Your task to perform on an android device: open a bookmark in the chrome app Image 0: 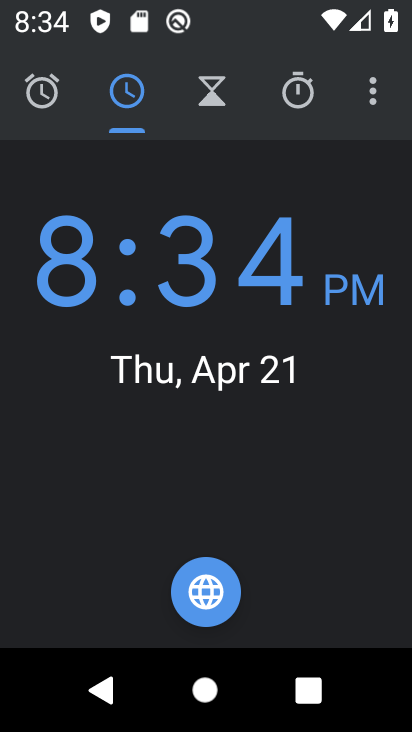
Step 0: press home button
Your task to perform on an android device: open a bookmark in the chrome app Image 1: 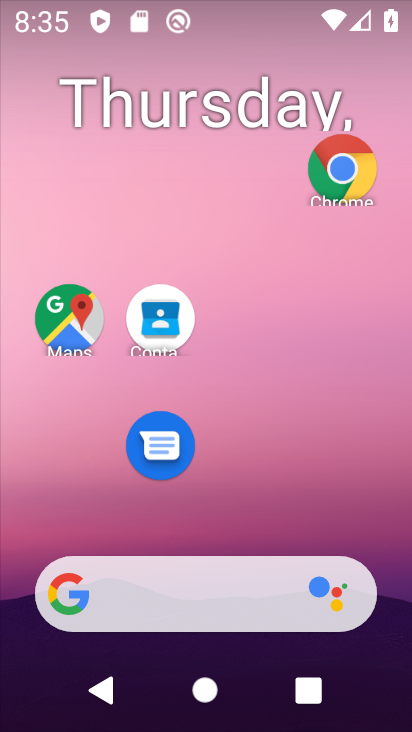
Step 1: drag from (314, 659) to (283, 259)
Your task to perform on an android device: open a bookmark in the chrome app Image 2: 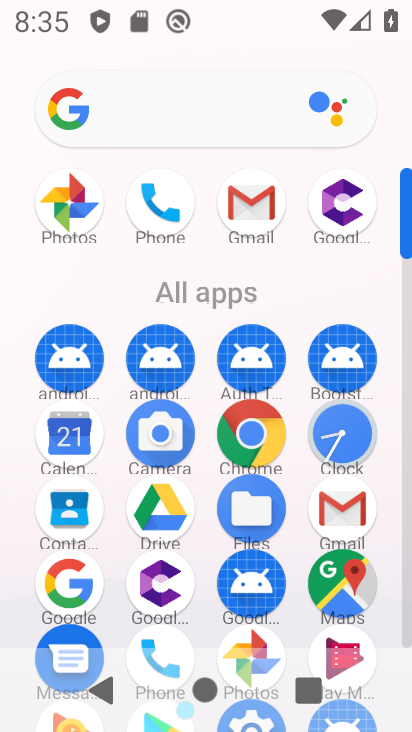
Step 2: click (254, 420)
Your task to perform on an android device: open a bookmark in the chrome app Image 3: 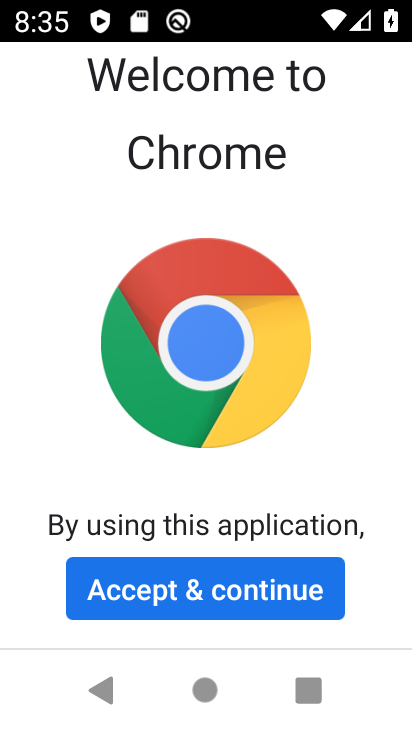
Step 3: click (224, 595)
Your task to perform on an android device: open a bookmark in the chrome app Image 4: 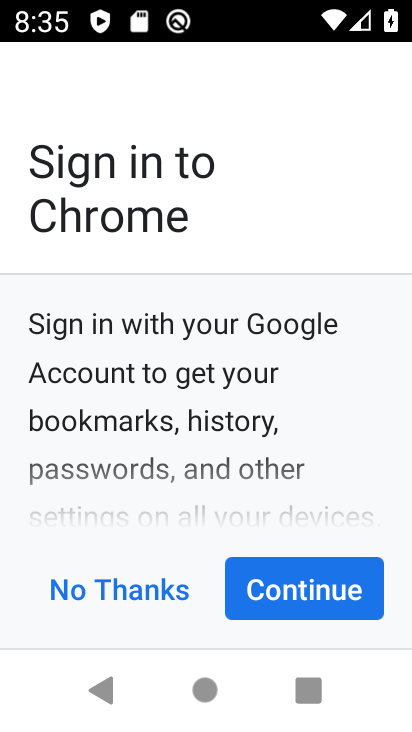
Step 4: click (281, 584)
Your task to perform on an android device: open a bookmark in the chrome app Image 5: 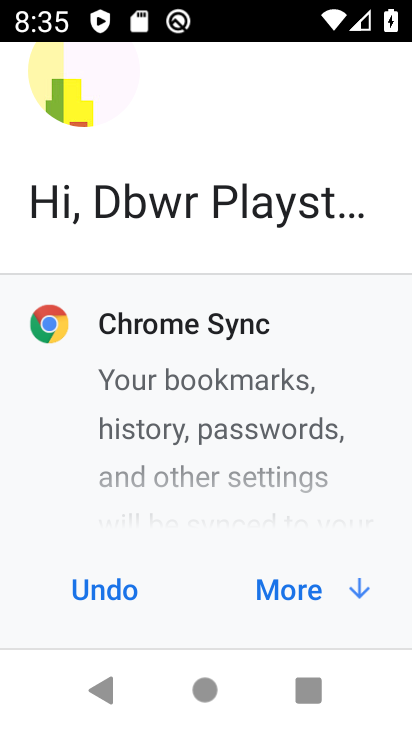
Step 5: click (364, 565)
Your task to perform on an android device: open a bookmark in the chrome app Image 6: 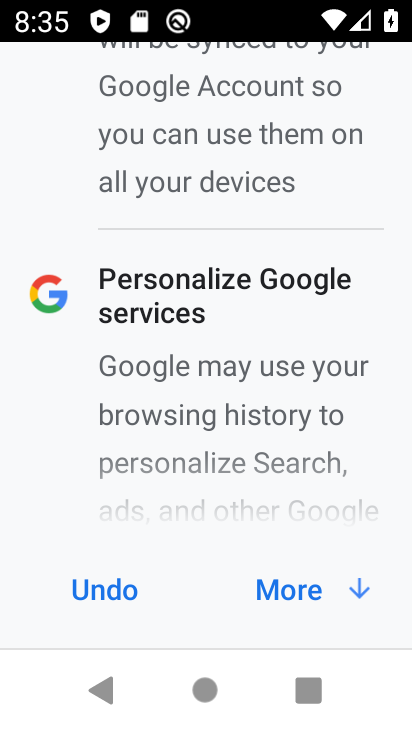
Step 6: click (345, 586)
Your task to perform on an android device: open a bookmark in the chrome app Image 7: 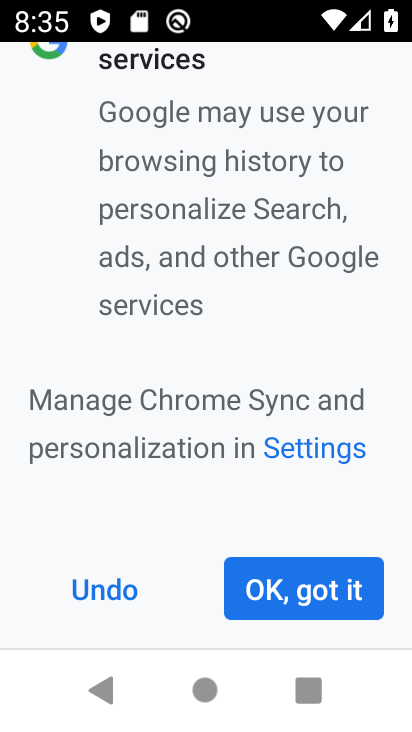
Step 7: click (342, 587)
Your task to perform on an android device: open a bookmark in the chrome app Image 8: 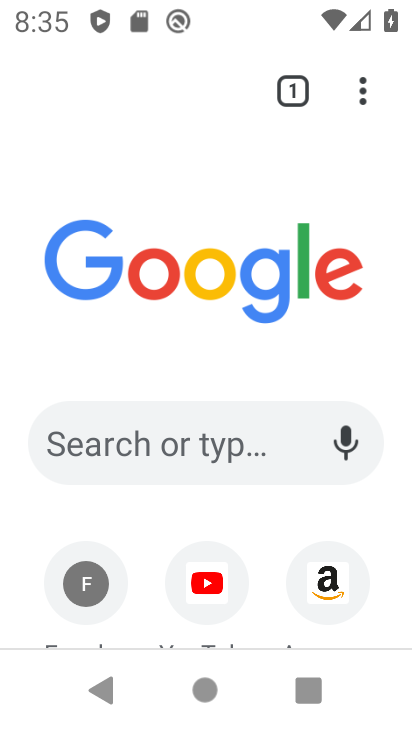
Step 8: click (356, 88)
Your task to perform on an android device: open a bookmark in the chrome app Image 9: 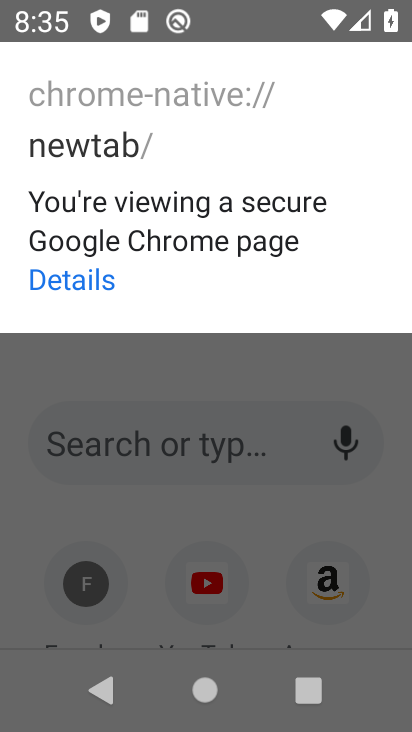
Step 9: click (128, 350)
Your task to perform on an android device: open a bookmark in the chrome app Image 10: 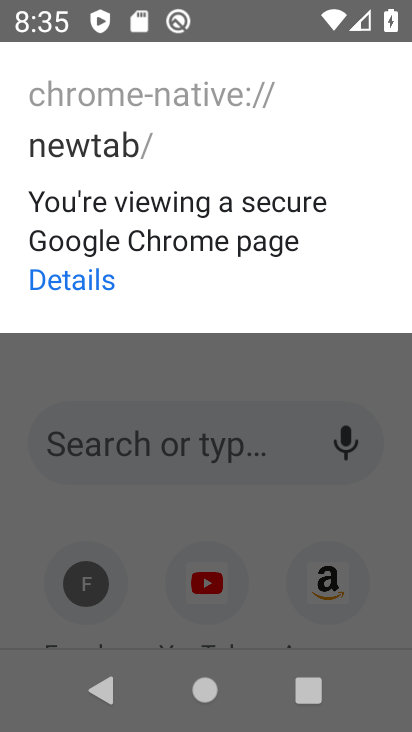
Step 10: press back button
Your task to perform on an android device: open a bookmark in the chrome app Image 11: 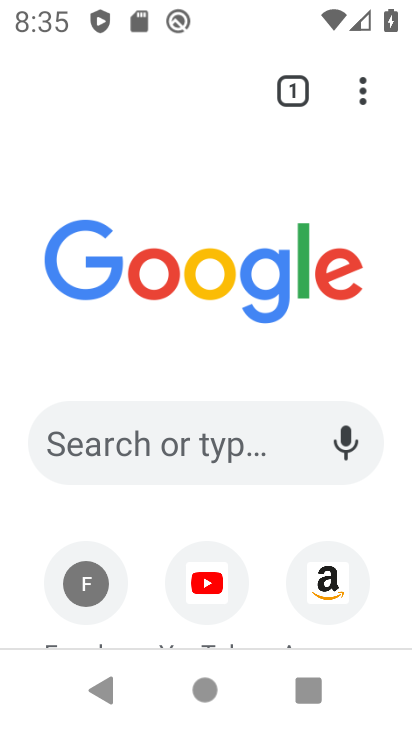
Step 11: click (365, 102)
Your task to perform on an android device: open a bookmark in the chrome app Image 12: 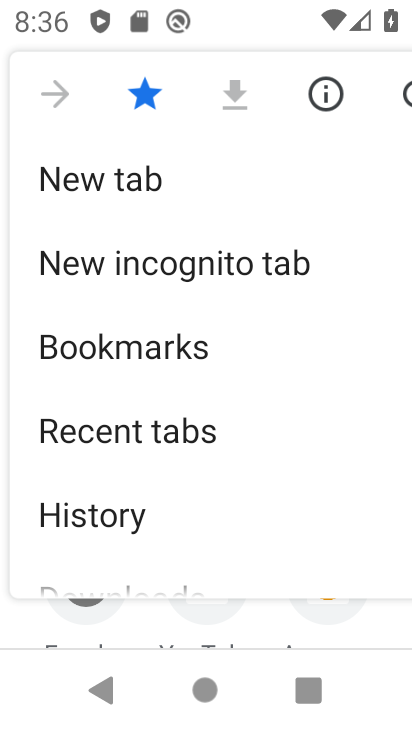
Step 12: click (116, 357)
Your task to perform on an android device: open a bookmark in the chrome app Image 13: 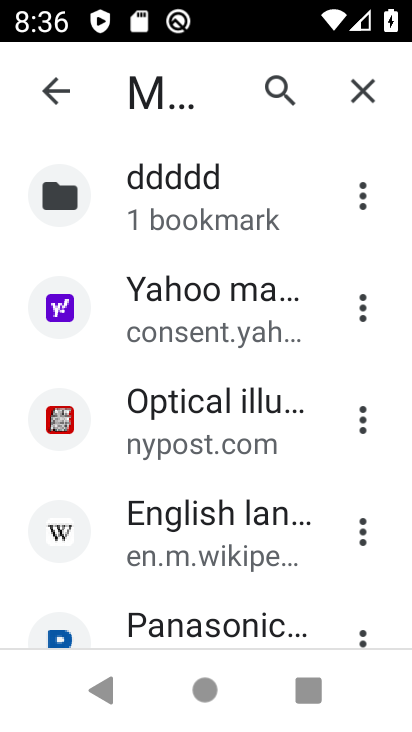
Step 13: click (172, 434)
Your task to perform on an android device: open a bookmark in the chrome app Image 14: 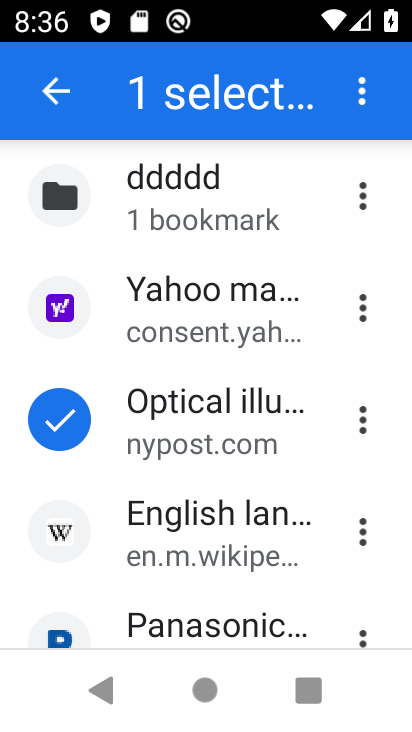
Step 14: click (188, 434)
Your task to perform on an android device: open a bookmark in the chrome app Image 15: 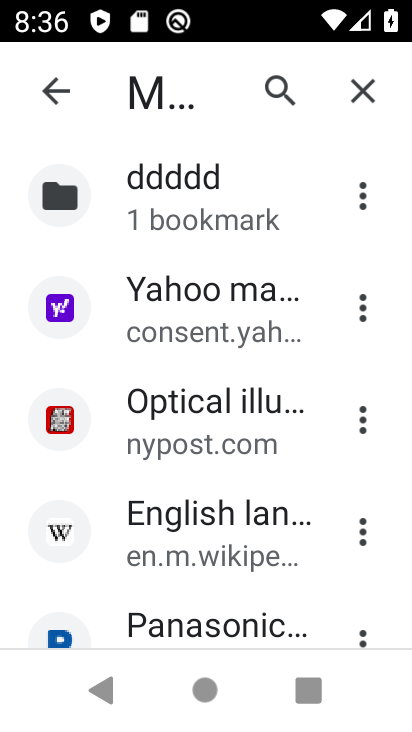
Step 15: click (188, 434)
Your task to perform on an android device: open a bookmark in the chrome app Image 16: 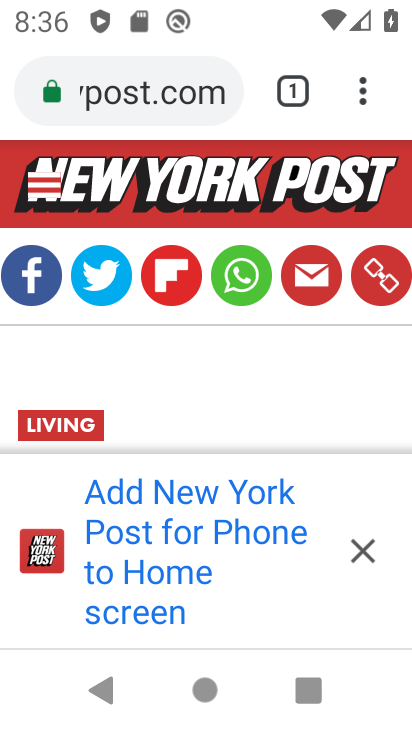
Step 16: task complete